Your task to perform on an android device: Open Google Maps and go to "Timeline" Image 0: 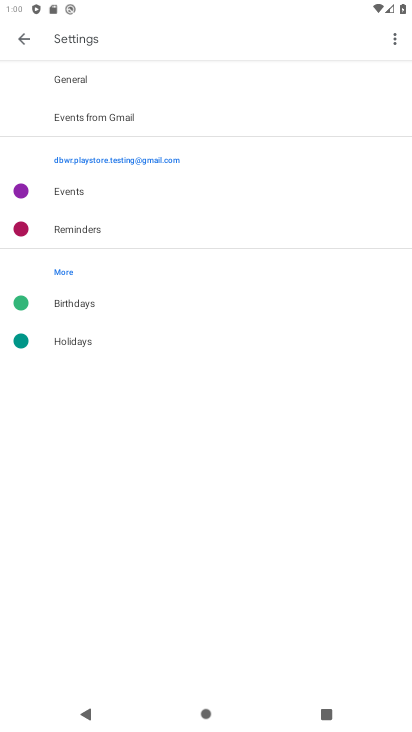
Step 0: press home button
Your task to perform on an android device: Open Google Maps and go to "Timeline" Image 1: 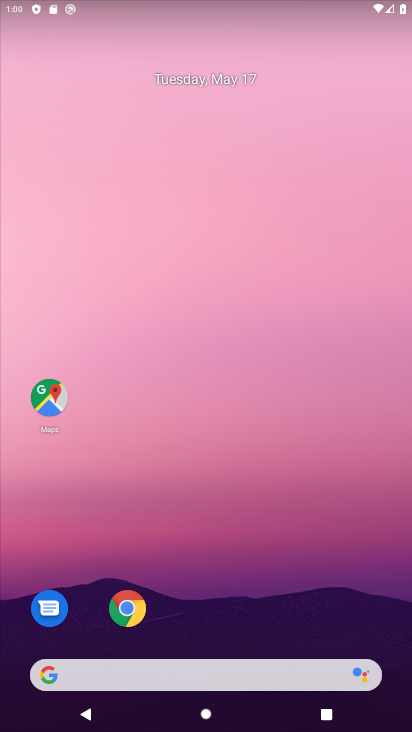
Step 1: click (63, 393)
Your task to perform on an android device: Open Google Maps and go to "Timeline" Image 2: 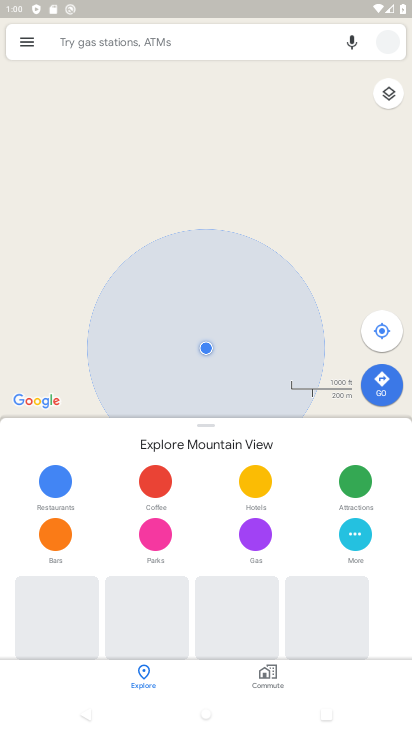
Step 2: click (27, 49)
Your task to perform on an android device: Open Google Maps and go to "Timeline" Image 3: 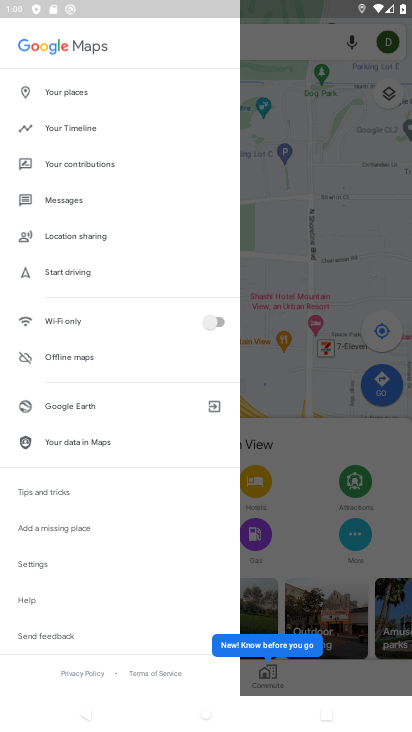
Step 3: click (56, 122)
Your task to perform on an android device: Open Google Maps and go to "Timeline" Image 4: 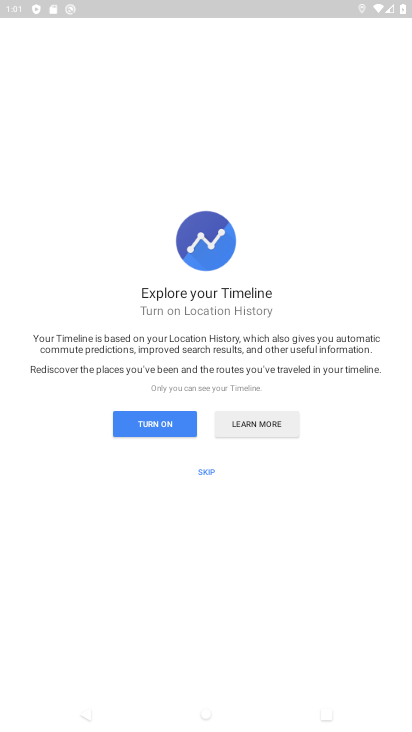
Step 4: click (171, 422)
Your task to perform on an android device: Open Google Maps and go to "Timeline" Image 5: 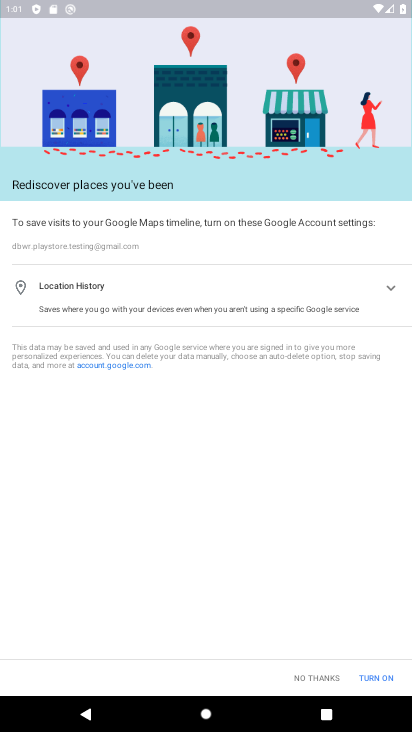
Step 5: click (383, 679)
Your task to perform on an android device: Open Google Maps and go to "Timeline" Image 6: 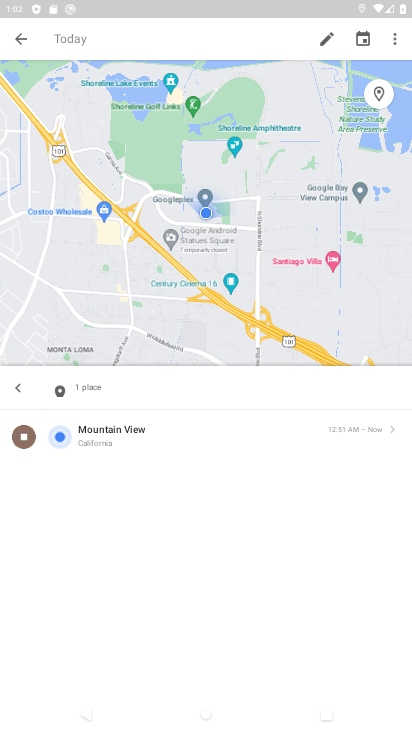
Step 6: task complete